Your task to perform on an android device: open app "Venmo" (install if not already installed), go to login, and select forgot password Image 0: 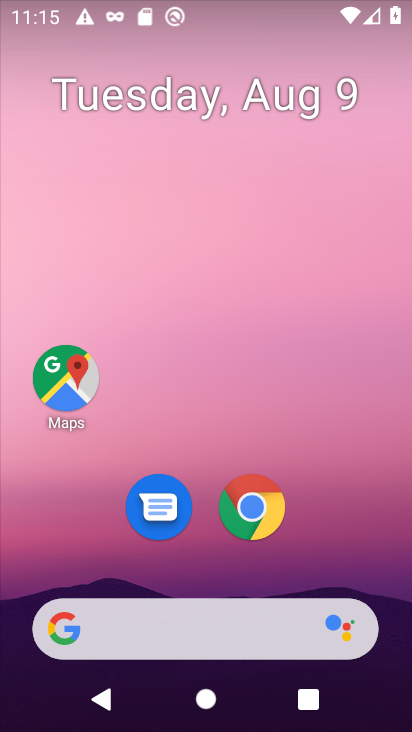
Step 0: drag from (226, 612) to (251, 111)
Your task to perform on an android device: open app "Venmo" (install if not already installed), go to login, and select forgot password Image 1: 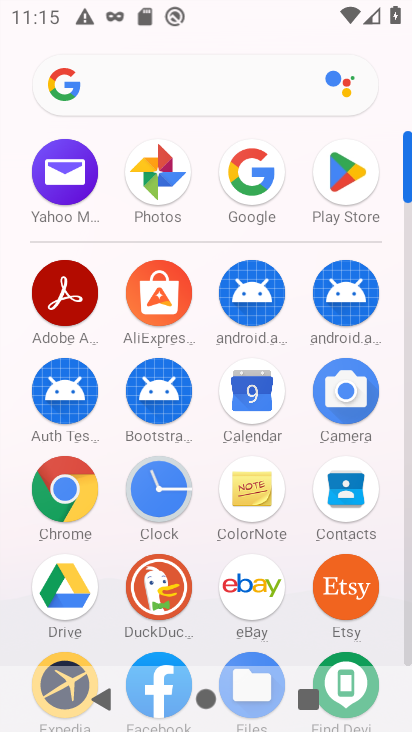
Step 1: click (346, 175)
Your task to perform on an android device: open app "Venmo" (install if not already installed), go to login, and select forgot password Image 2: 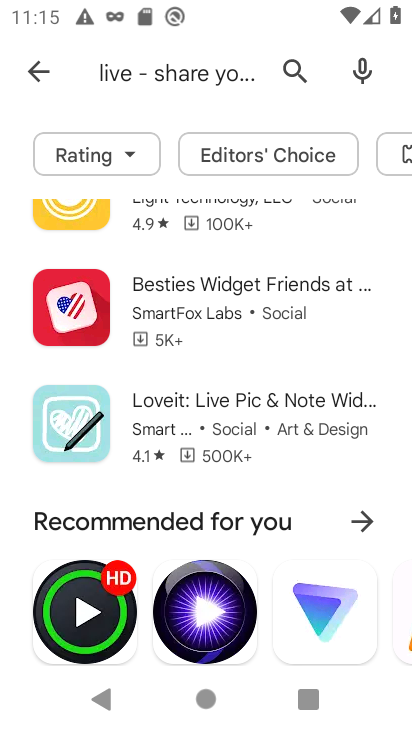
Step 2: click (282, 68)
Your task to perform on an android device: open app "Venmo" (install if not already installed), go to login, and select forgot password Image 3: 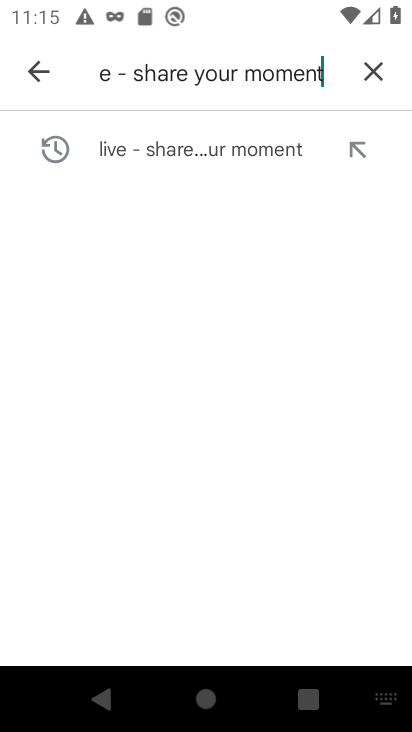
Step 3: click (374, 72)
Your task to perform on an android device: open app "Venmo" (install if not already installed), go to login, and select forgot password Image 4: 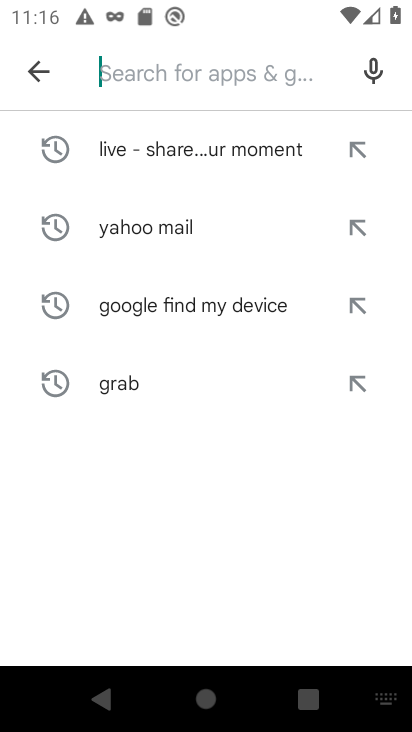
Step 4: type "Venmo"
Your task to perform on an android device: open app "Venmo" (install if not already installed), go to login, and select forgot password Image 5: 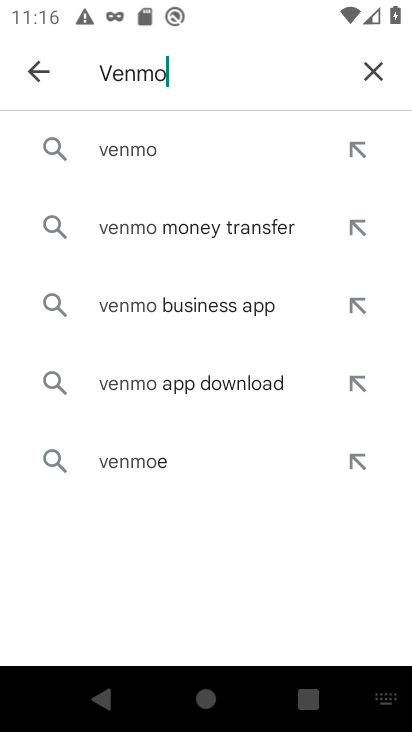
Step 5: click (141, 142)
Your task to perform on an android device: open app "Venmo" (install if not already installed), go to login, and select forgot password Image 6: 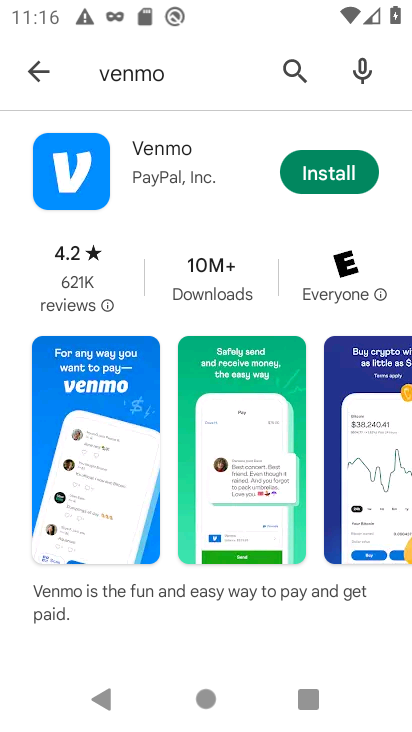
Step 6: click (326, 166)
Your task to perform on an android device: open app "Venmo" (install if not already installed), go to login, and select forgot password Image 7: 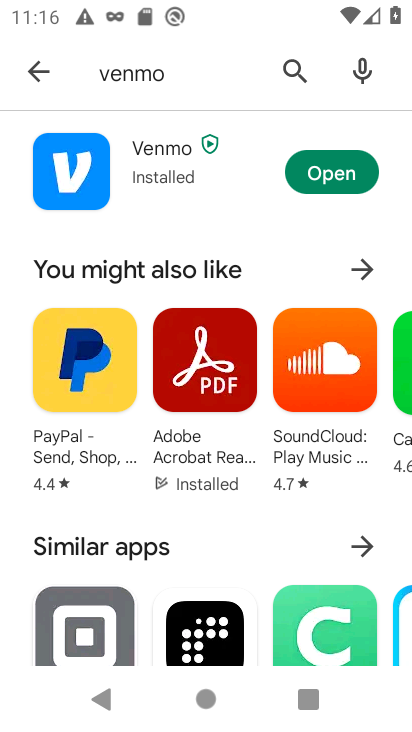
Step 7: click (332, 174)
Your task to perform on an android device: open app "Venmo" (install if not already installed), go to login, and select forgot password Image 8: 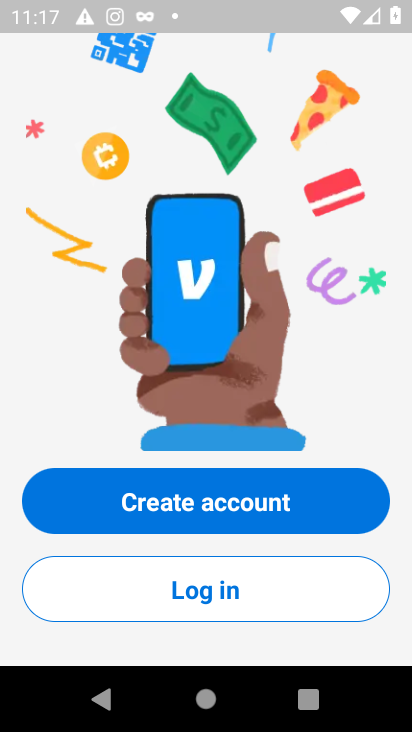
Step 8: drag from (252, 456) to (317, 249)
Your task to perform on an android device: open app "Venmo" (install if not already installed), go to login, and select forgot password Image 9: 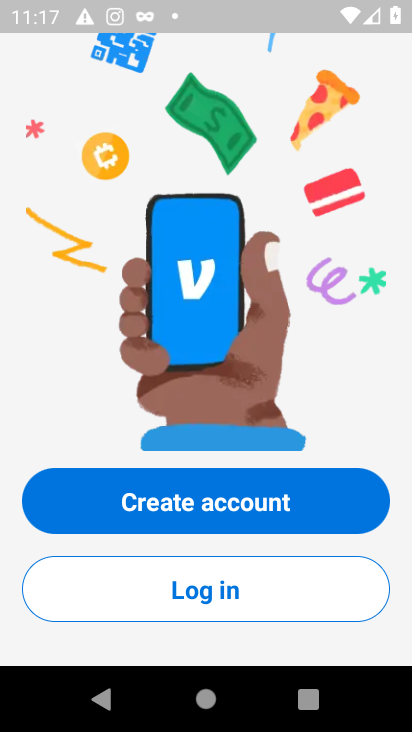
Step 9: click (226, 598)
Your task to perform on an android device: open app "Venmo" (install if not already installed), go to login, and select forgot password Image 10: 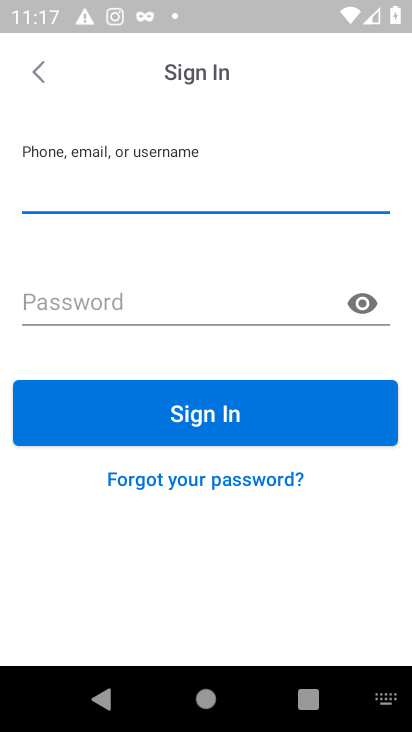
Step 10: click (237, 476)
Your task to perform on an android device: open app "Venmo" (install if not already installed), go to login, and select forgot password Image 11: 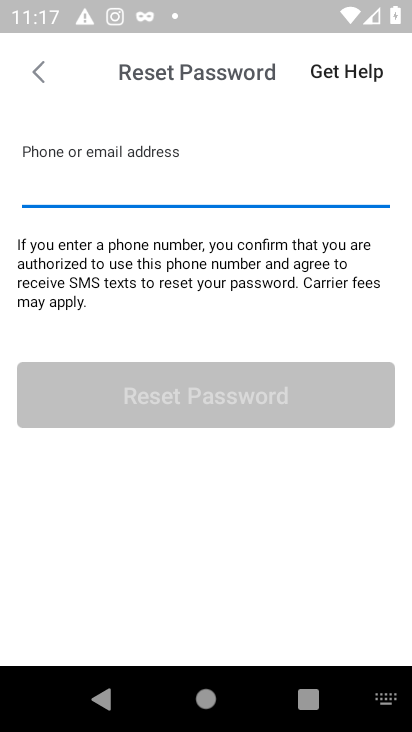
Step 11: task complete